Your task to perform on an android device: Go to Wikipedia Image 0: 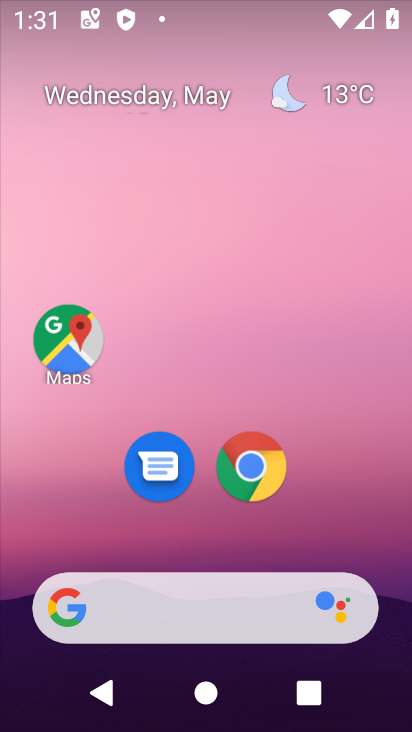
Step 0: press home button
Your task to perform on an android device: Go to Wikipedia Image 1: 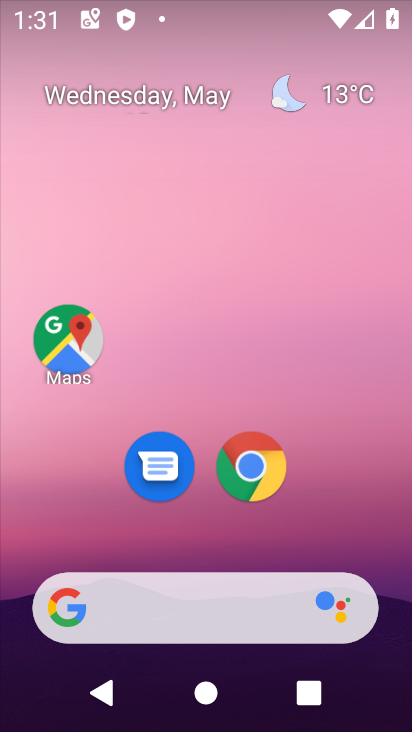
Step 1: click (250, 473)
Your task to perform on an android device: Go to Wikipedia Image 2: 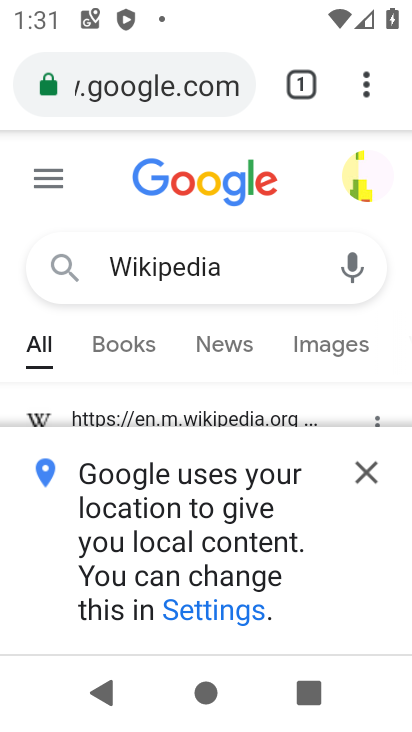
Step 2: task complete